Your task to perform on an android device: Go to settings Image 0: 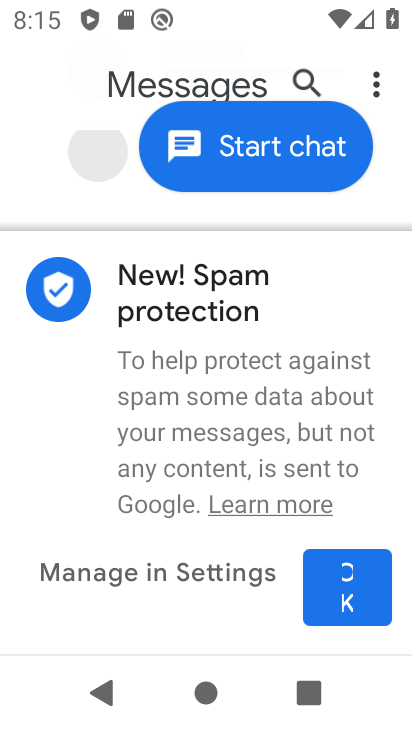
Step 0: press home button
Your task to perform on an android device: Go to settings Image 1: 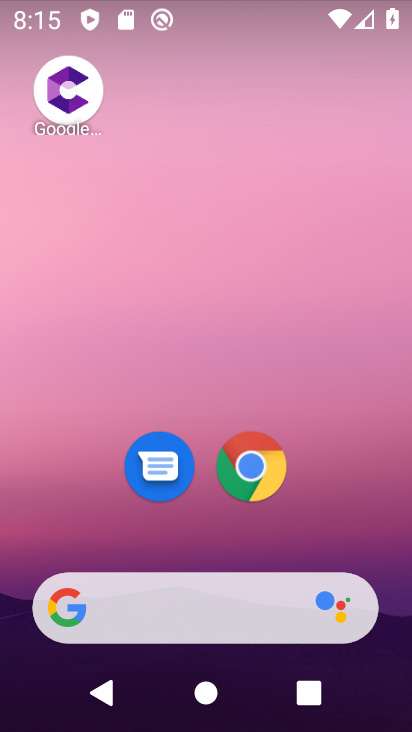
Step 1: drag from (381, 551) to (265, 105)
Your task to perform on an android device: Go to settings Image 2: 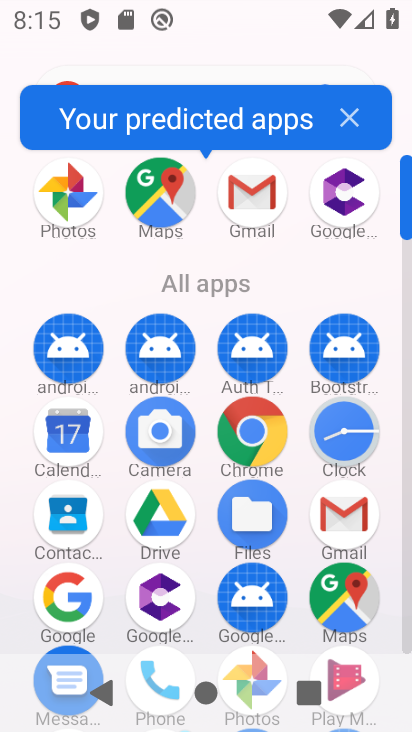
Step 2: click (408, 646)
Your task to perform on an android device: Go to settings Image 3: 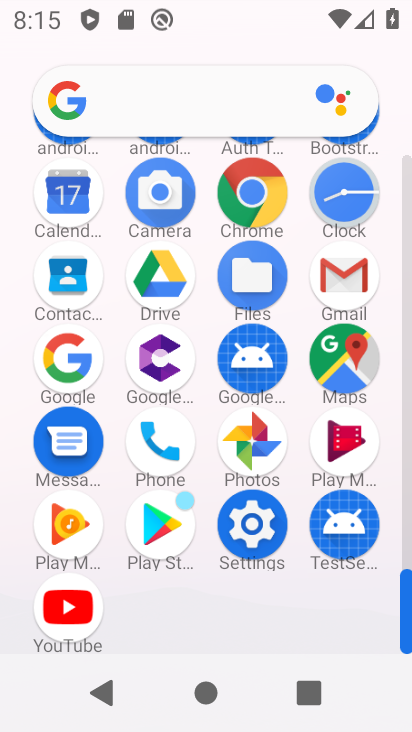
Step 3: click (245, 528)
Your task to perform on an android device: Go to settings Image 4: 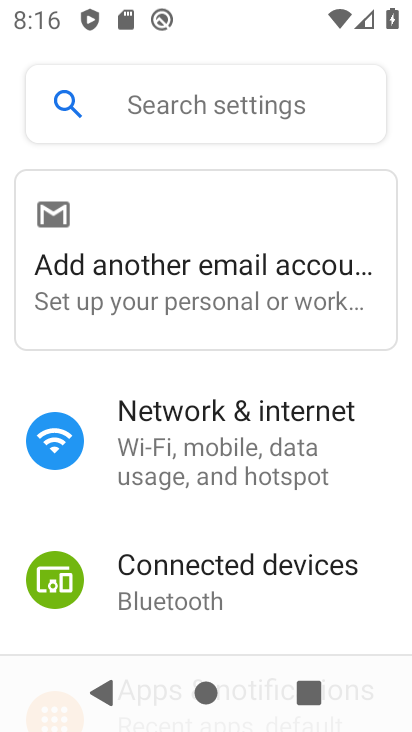
Step 4: task complete